Your task to perform on an android device: Go to ESPN.com Image 0: 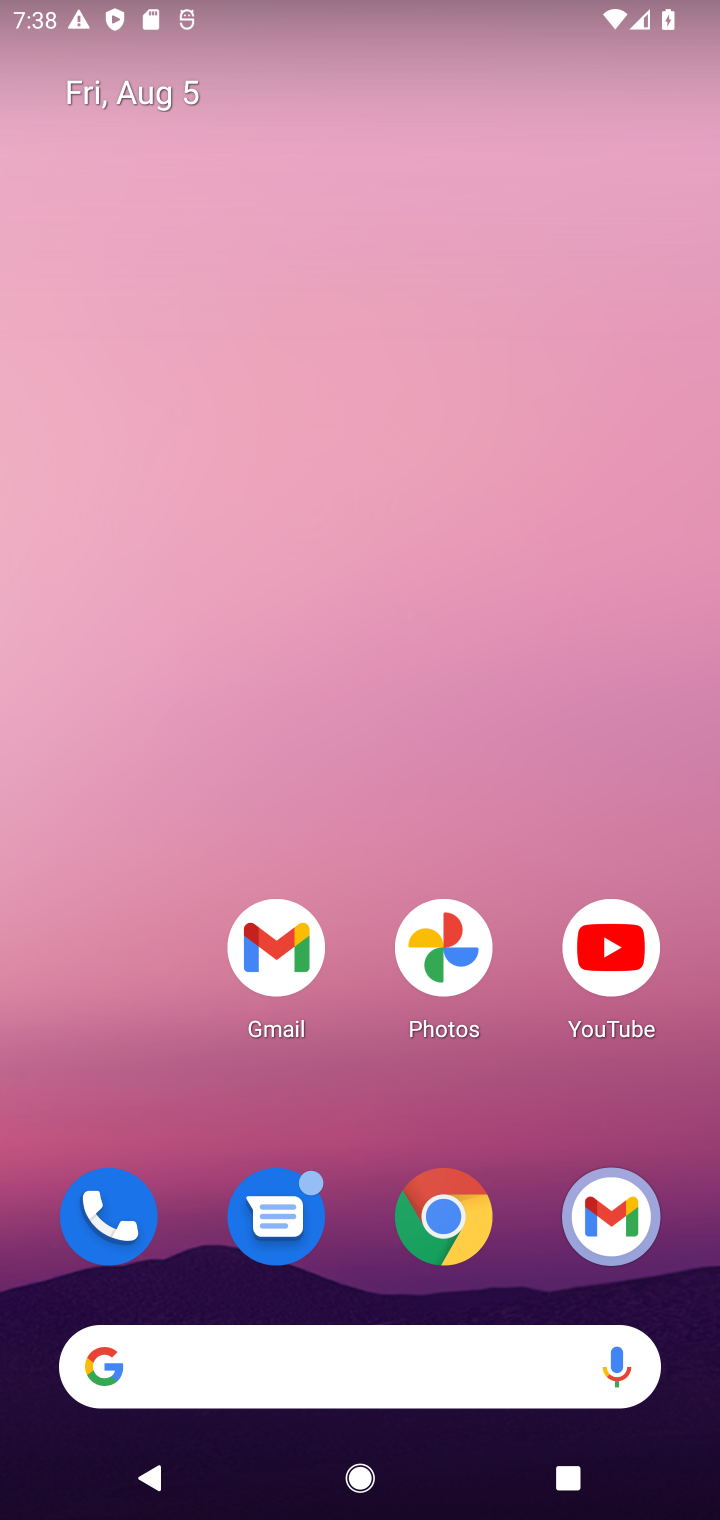
Step 0: click (444, 1234)
Your task to perform on an android device: Go to ESPN.com Image 1: 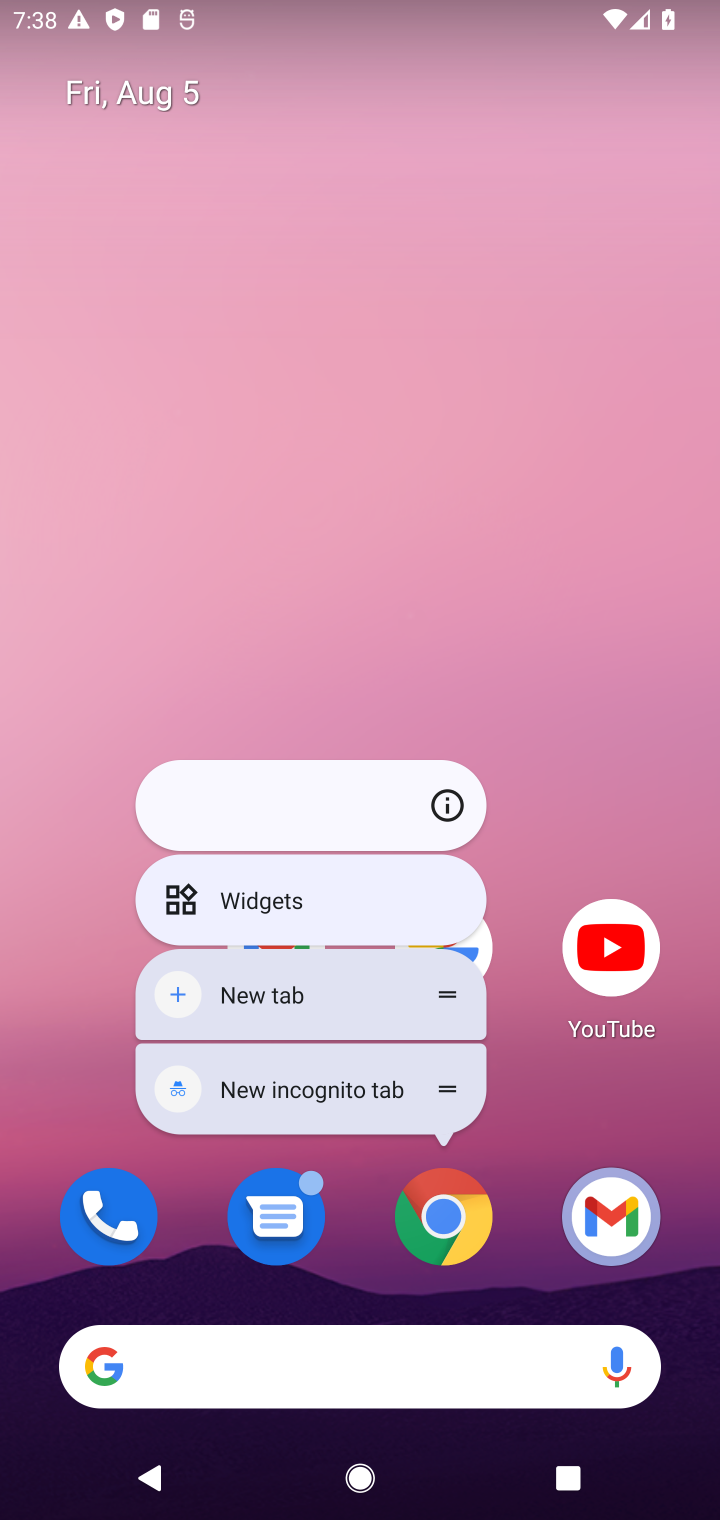
Step 1: click (453, 1222)
Your task to perform on an android device: Go to ESPN.com Image 2: 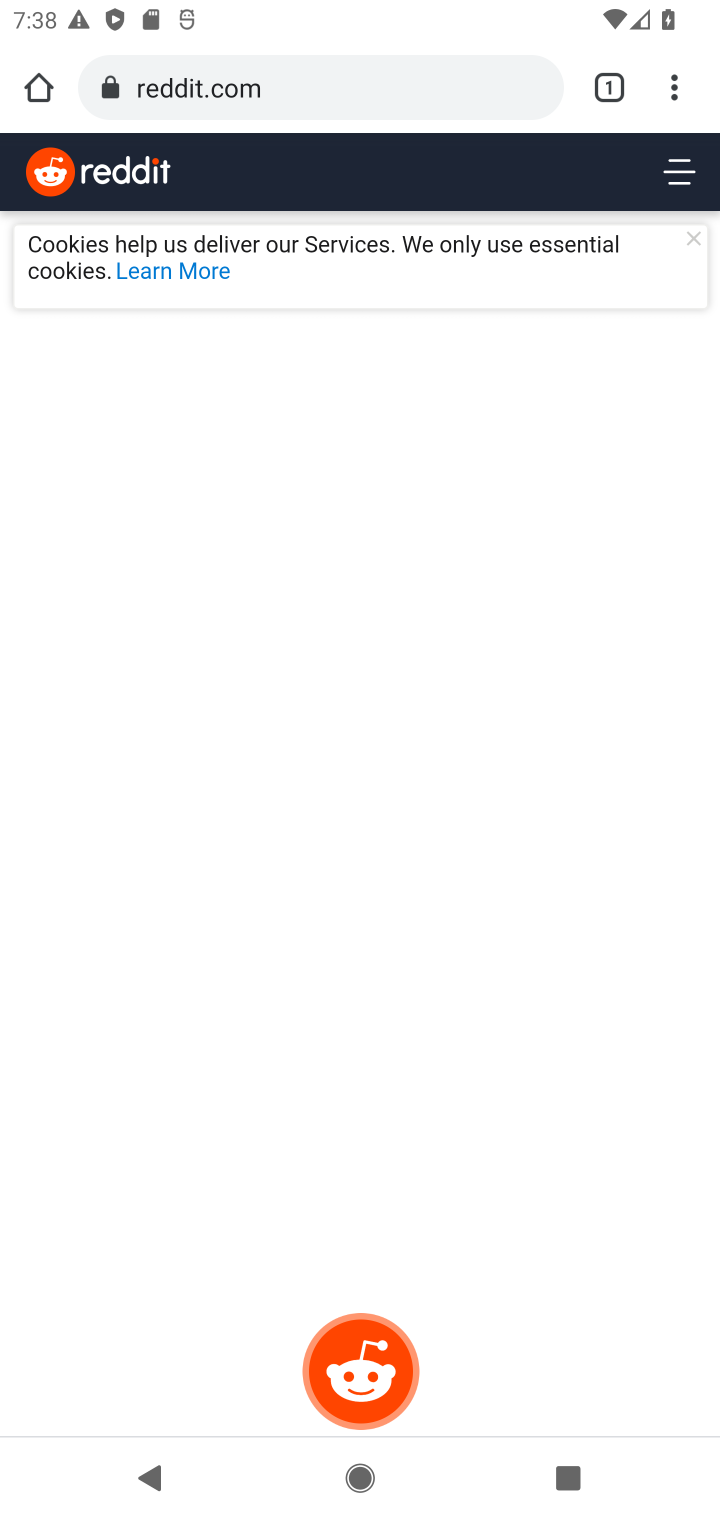
Step 2: click (296, 95)
Your task to perform on an android device: Go to ESPN.com Image 3: 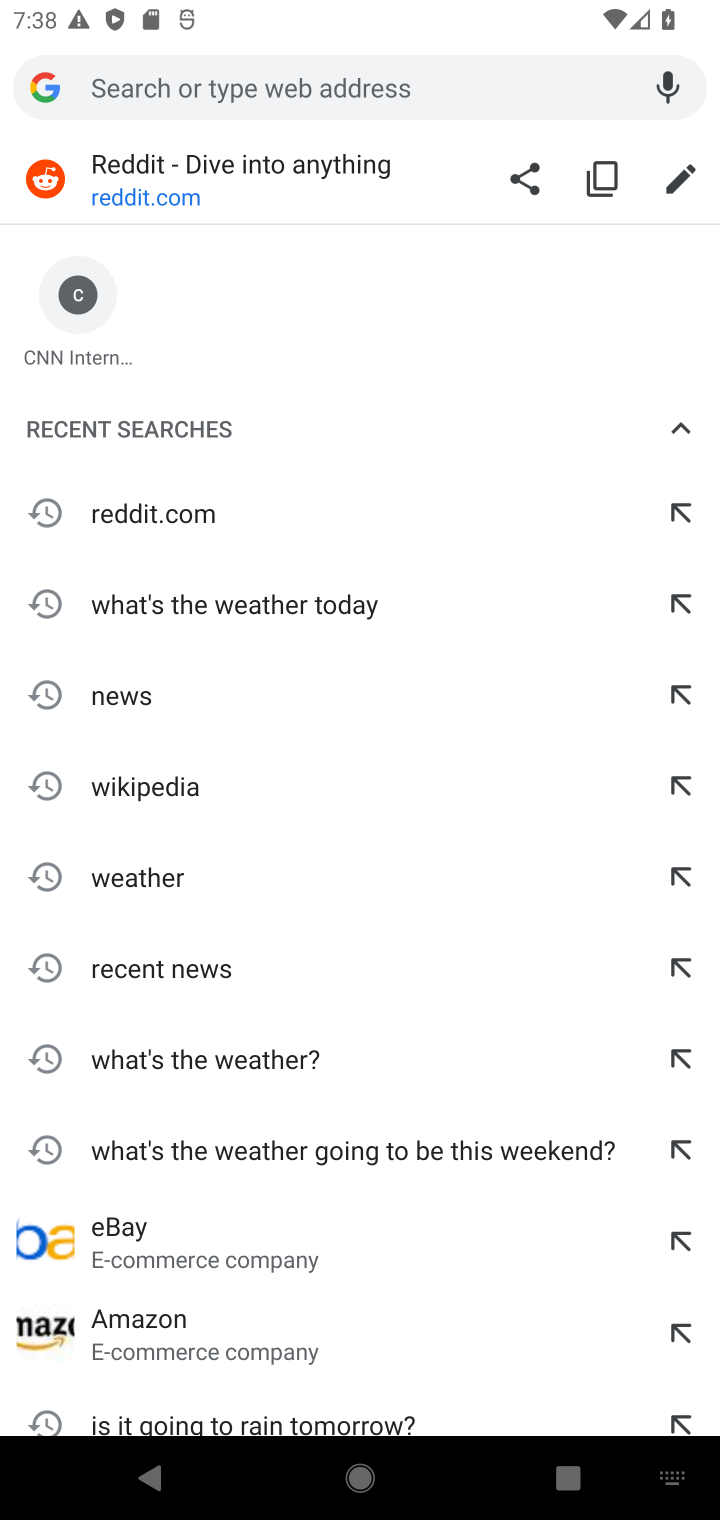
Step 3: type "espn.com"
Your task to perform on an android device: Go to ESPN.com Image 4: 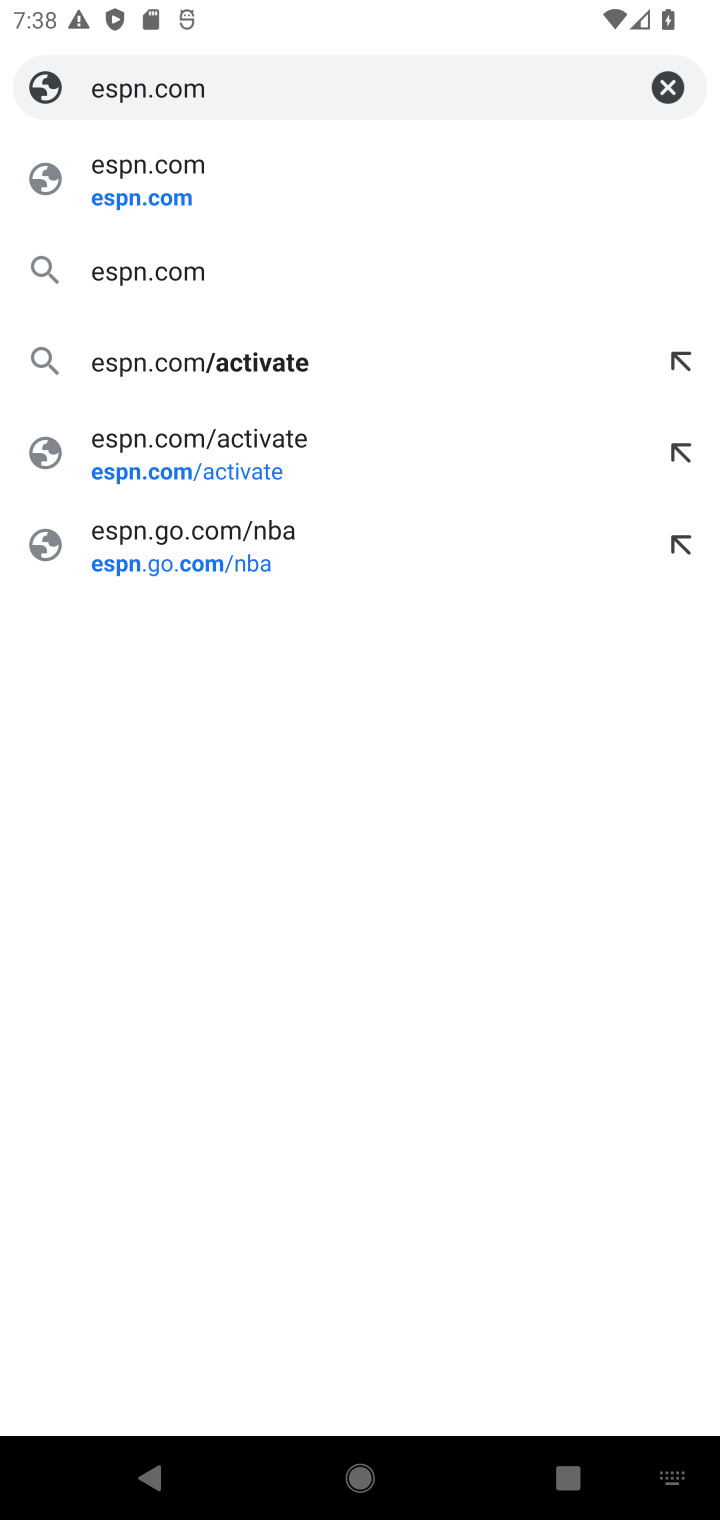
Step 4: click (163, 181)
Your task to perform on an android device: Go to ESPN.com Image 5: 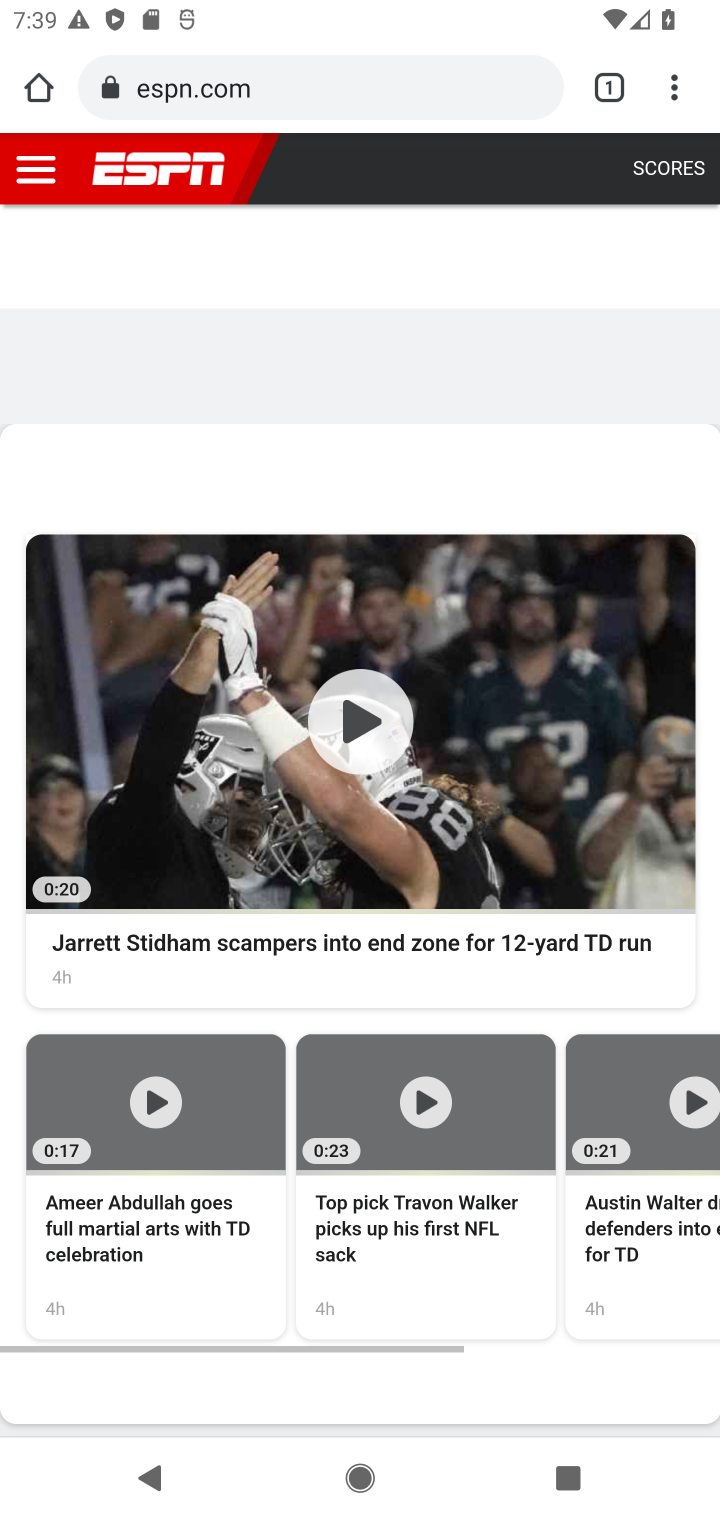
Step 5: task complete